Your task to perform on an android device: Go to Reddit.com Image 0: 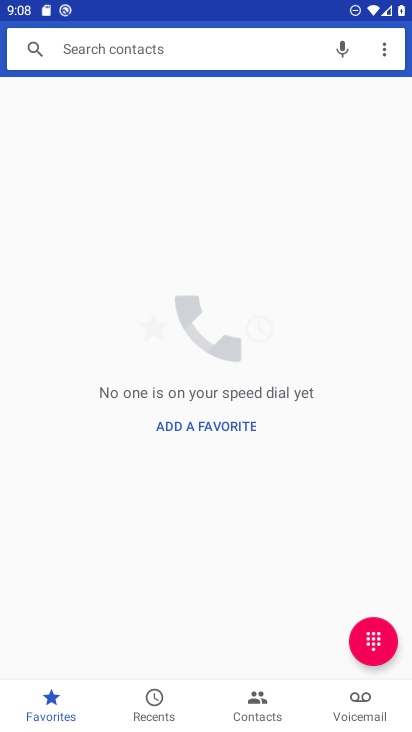
Step 0: press home button
Your task to perform on an android device: Go to Reddit.com Image 1: 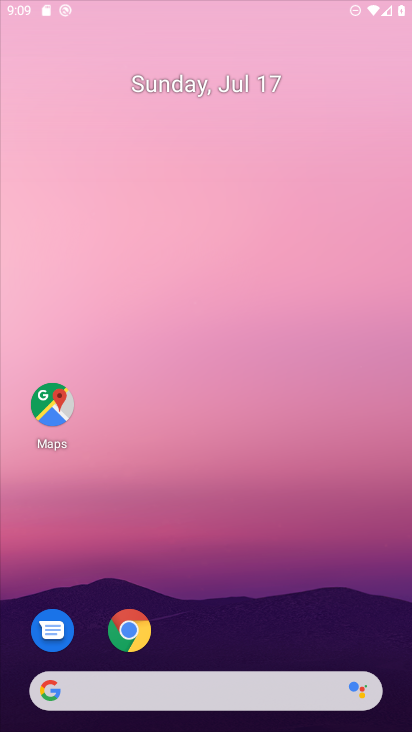
Step 1: drag from (336, 614) to (296, 61)
Your task to perform on an android device: Go to Reddit.com Image 2: 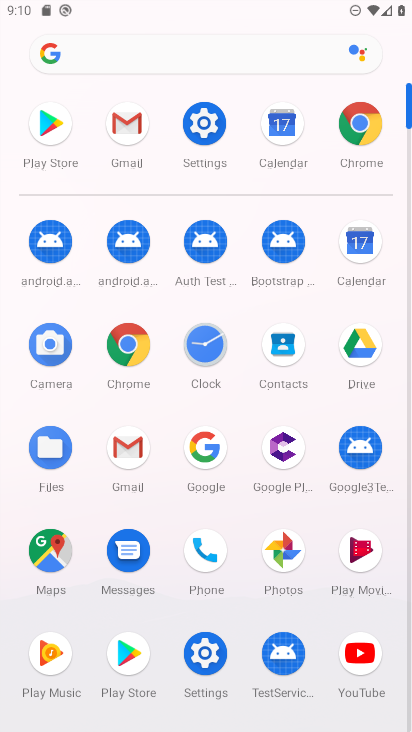
Step 2: click (208, 426)
Your task to perform on an android device: Go to Reddit.com Image 3: 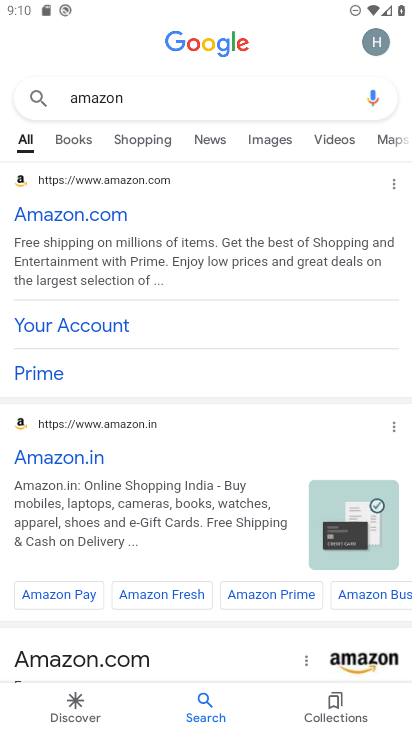
Step 3: press back button
Your task to perform on an android device: Go to Reddit.com Image 4: 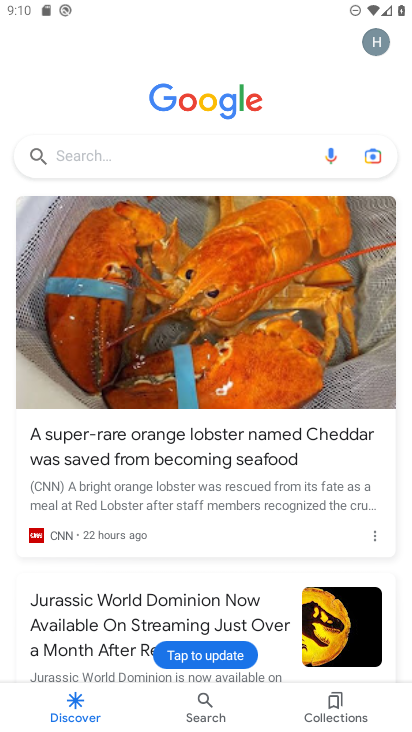
Step 4: click (106, 150)
Your task to perform on an android device: Go to Reddit.com Image 5: 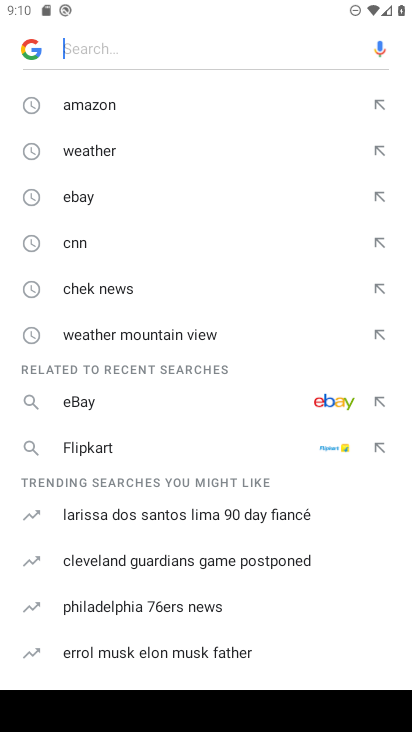
Step 5: type "Reddit.com"
Your task to perform on an android device: Go to Reddit.com Image 6: 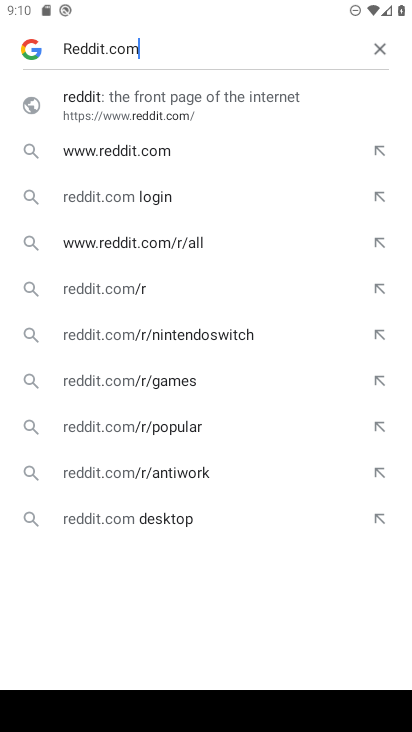
Step 6: click (110, 103)
Your task to perform on an android device: Go to Reddit.com Image 7: 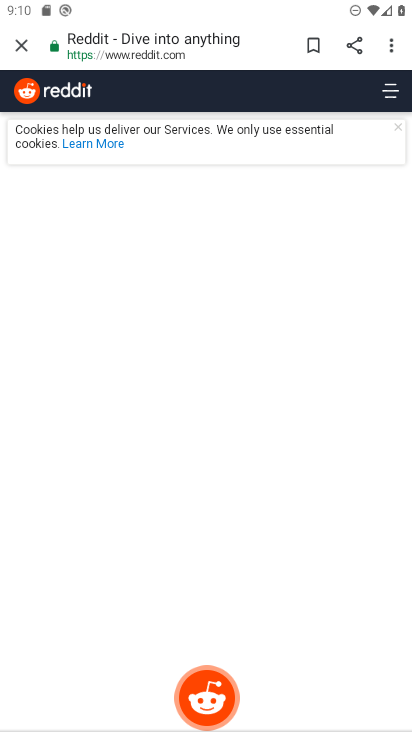
Step 7: task complete